Your task to perform on an android device: turn off airplane mode Image 0: 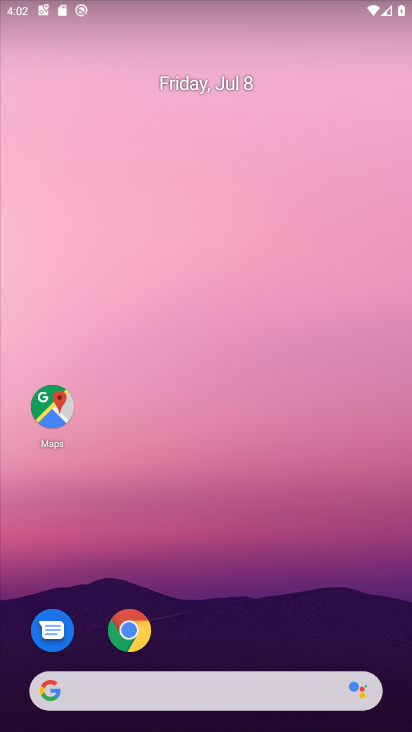
Step 0: drag from (312, 622) to (271, 76)
Your task to perform on an android device: turn off airplane mode Image 1: 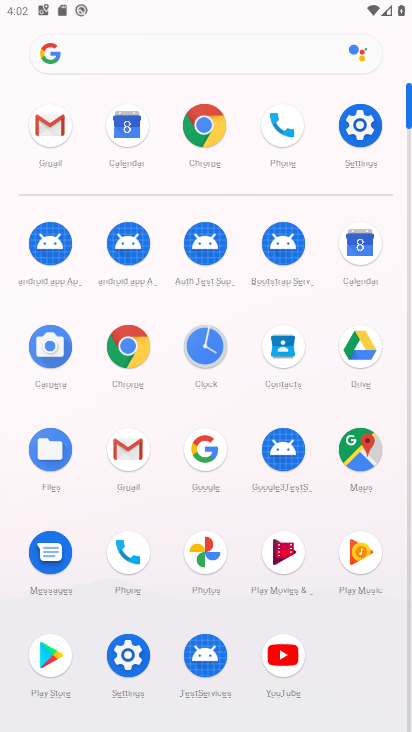
Step 1: click (362, 116)
Your task to perform on an android device: turn off airplane mode Image 2: 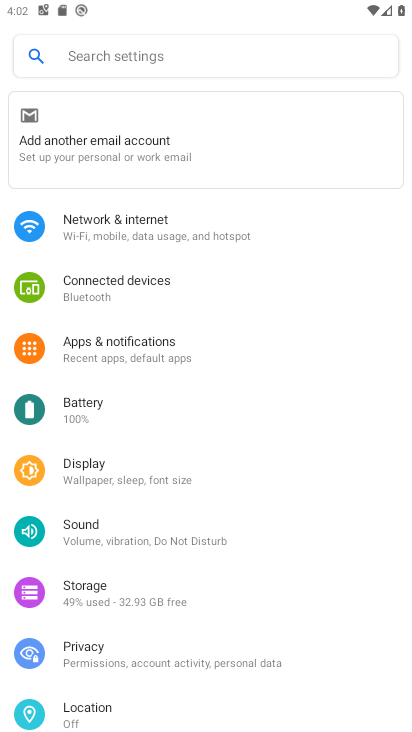
Step 2: click (176, 221)
Your task to perform on an android device: turn off airplane mode Image 3: 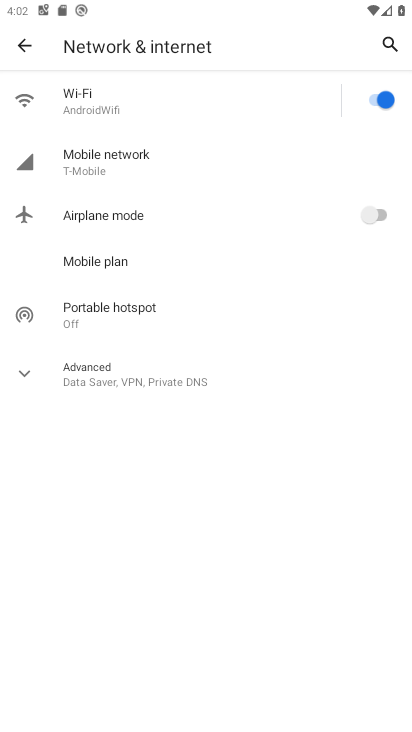
Step 3: task complete